Your task to perform on an android device: Open Google Chrome and open the bookmarks view Image 0: 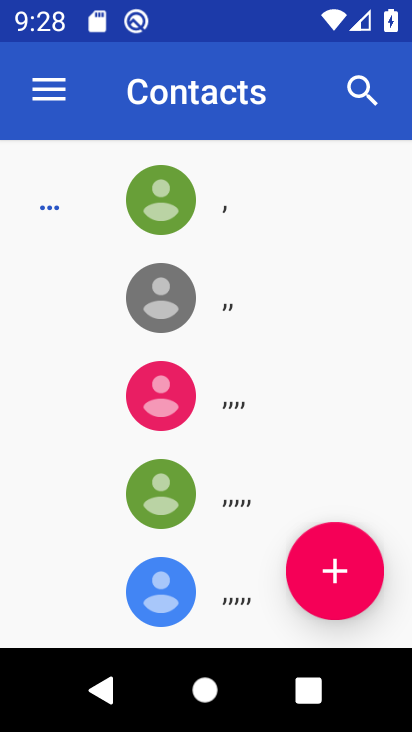
Step 0: press home button
Your task to perform on an android device: Open Google Chrome and open the bookmarks view Image 1: 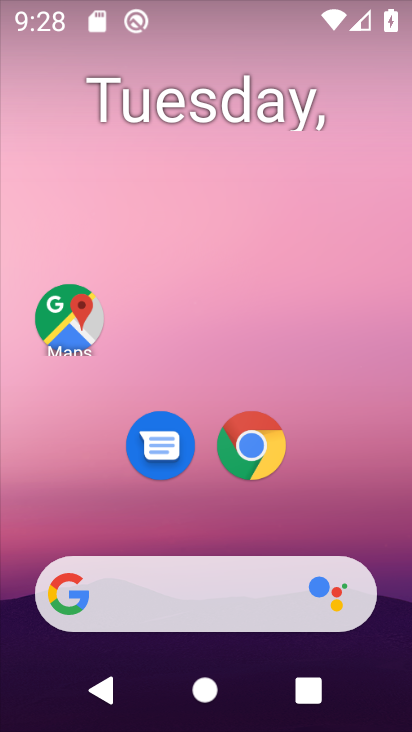
Step 1: click (251, 437)
Your task to perform on an android device: Open Google Chrome and open the bookmarks view Image 2: 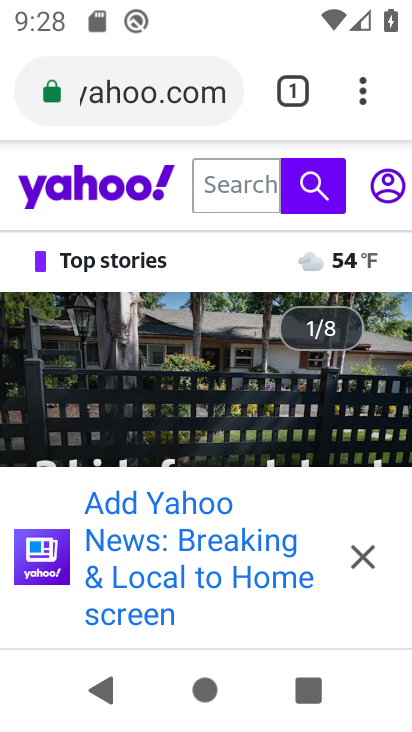
Step 2: click (361, 84)
Your task to perform on an android device: Open Google Chrome and open the bookmarks view Image 3: 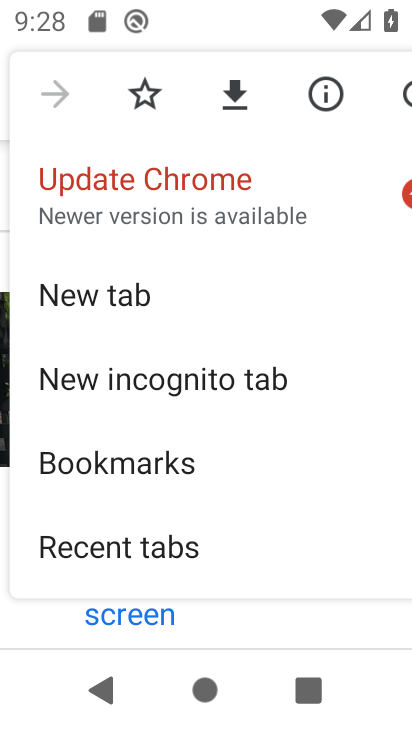
Step 3: click (119, 463)
Your task to perform on an android device: Open Google Chrome and open the bookmarks view Image 4: 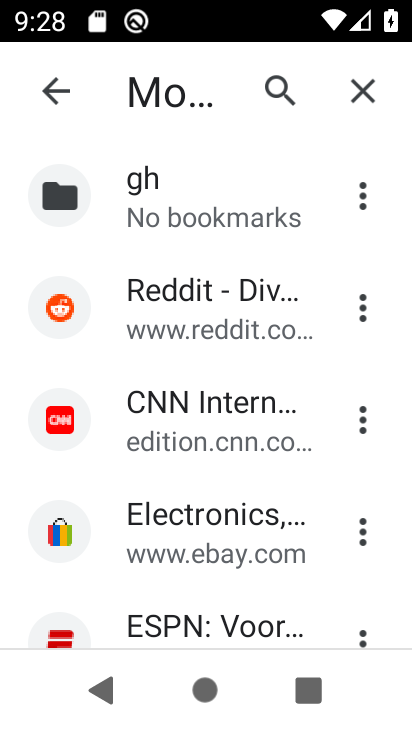
Step 4: task complete